Your task to perform on an android device: Open the calendar app, open the side menu, and click the "Day" option Image 0: 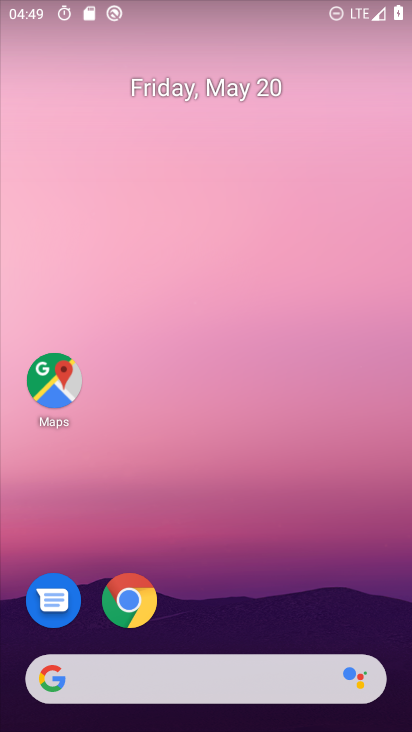
Step 0: drag from (239, 605) to (321, 23)
Your task to perform on an android device: Open the calendar app, open the side menu, and click the "Day" option Image 1: 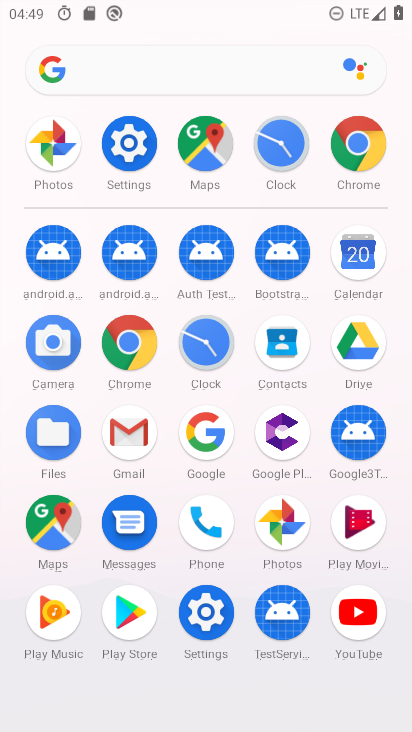
Step 1: click (353, 265)
Your task to perform on an android device: Open the calendar app, open the side menu, and click the "Day" option Image 2: 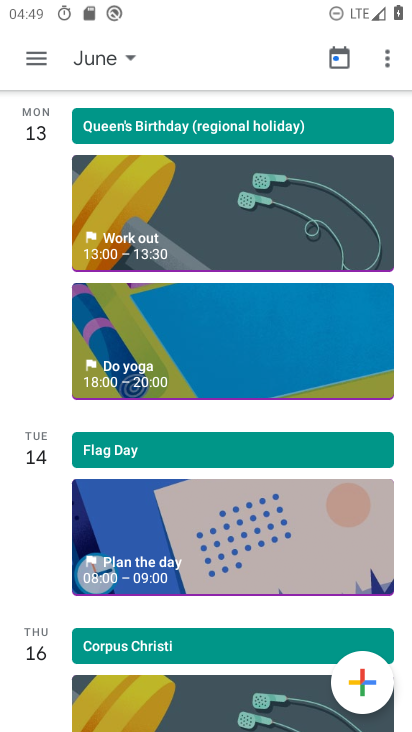
Step 2: click (33, 53)
Your task to perform on an android device: Open the calendar app, open the side menu, and click the "Day" option Image 3: 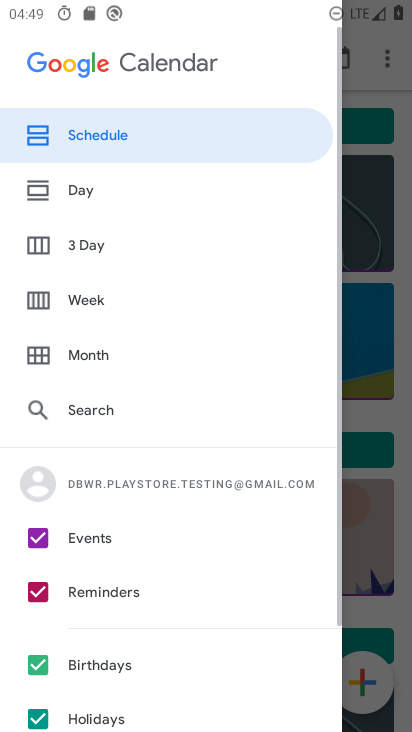
Step 3: click (103, 185)
Your task to perform on an android device: Open the calendar app, open the side menu, and click the "Day" option Image 4: 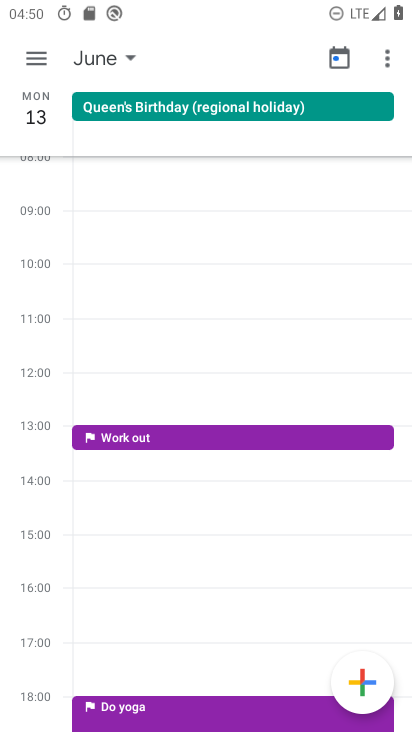
Step 4: task complete